Your task to perform on an android device: Open Google Maps and go to "Timeline" Image 0: 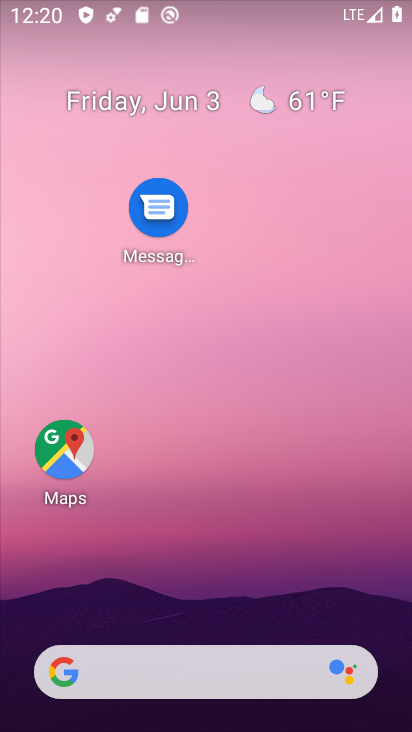
Step 0: drag from (207, 612) to (199, 32)
Your task to perform on an android device: Open Google Maps and go to "Timeline" Image 1: 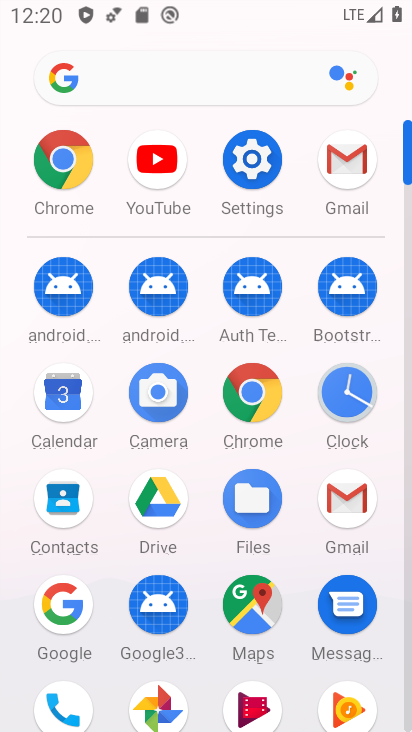
Step 1: click (261, 610)
Your task to perform on an android device: Open Google Maps and go to "Timeline" Image 2: 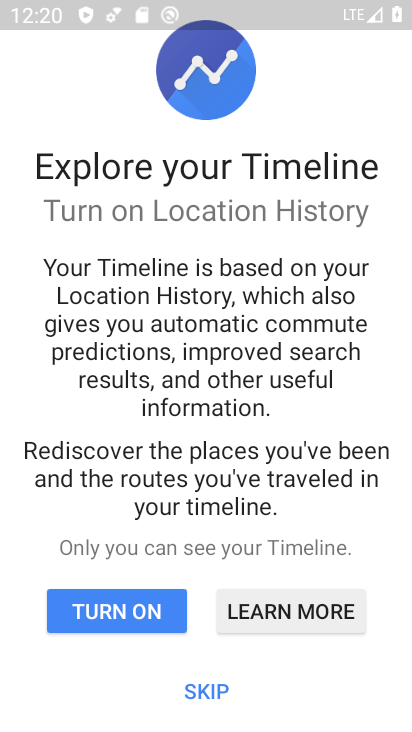
Step 2: click (221, 673)
Your task to perform on an android device: Open Google Maps and go to "Timeline" Image 3: 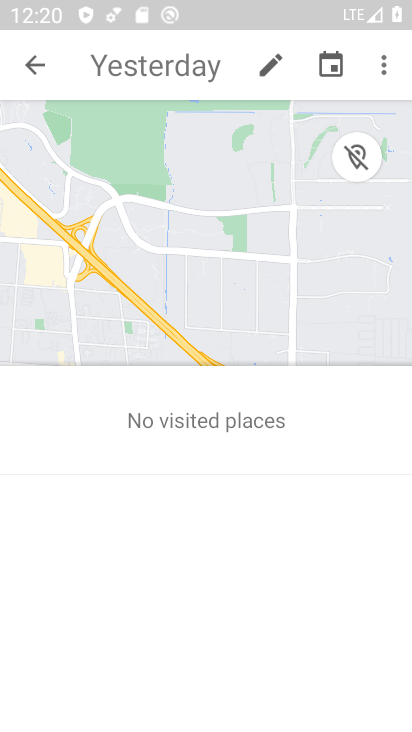
Step 3: task complete